Your task to perform on an android device: Is it going to rain today? Image 0: 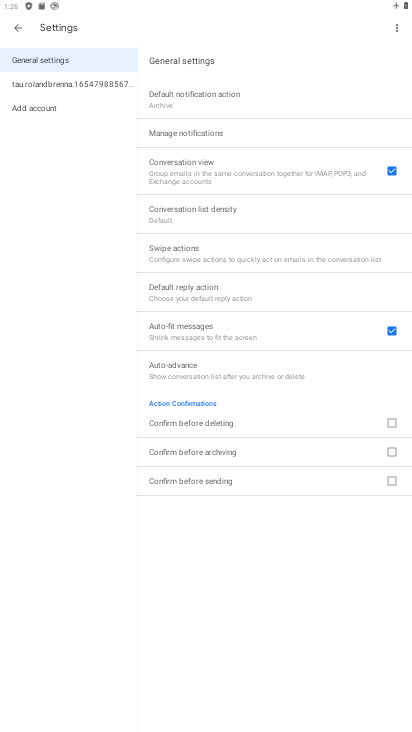
Step 0: press home button
Your task to perform on an android device: Is it going to rain today? Image 1: 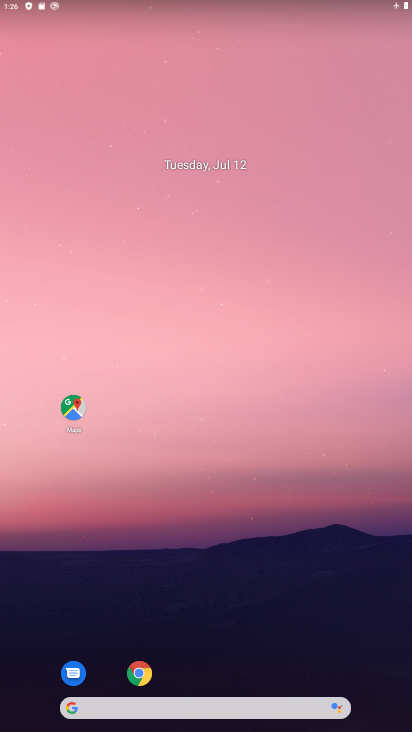
Step 1: drag from (176, 658) to (197, 198)
Your task to perform on an android device: Is it going to rain today? Image 2: 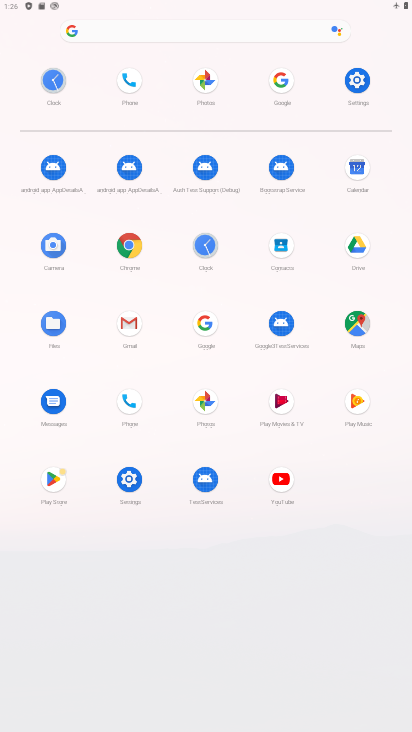
Step 2: click (134, 240)
Your task to perform on an android device: Is it going to rain today? Image 3: 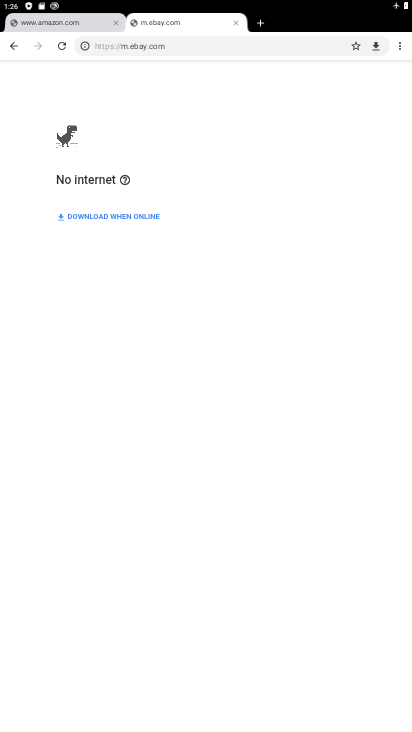
Step 3: click (185, 28)
Your task to perform on an android device: Is it going to rain today? Image 4: 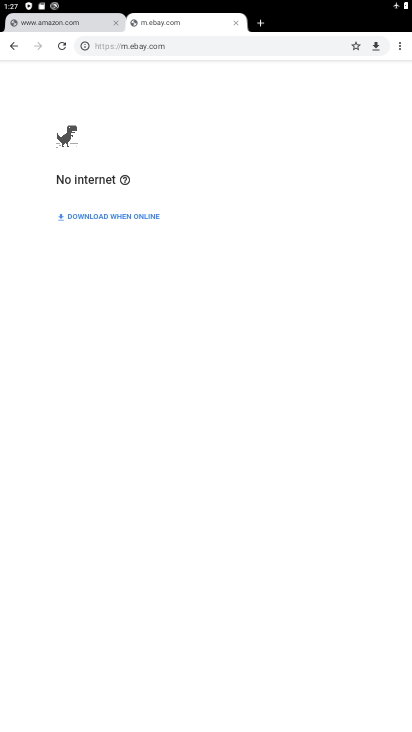
Step 4: click (230, 44)
Your task to perform on an android device: Is it going to rain today? Image 5: 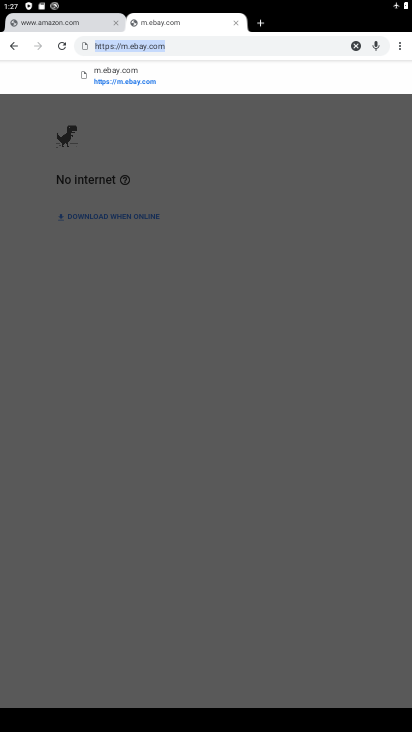
Step 5: task complete